Your task to perform on an android device: find which apps use the phone's location Image 0: 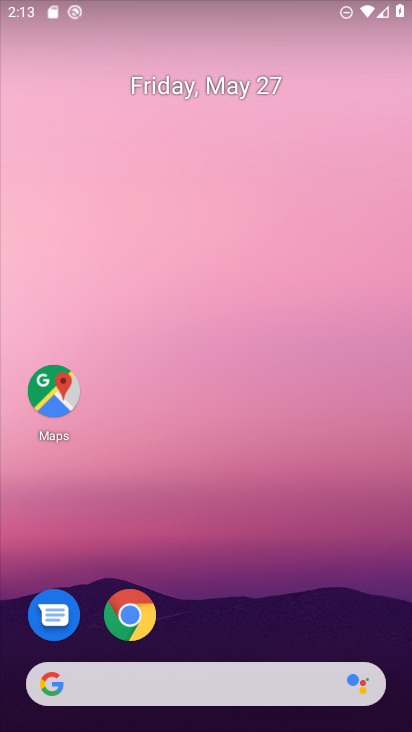
Step 0: drag from (237, 574) to (243, 159)
Your task to perform on an android device: find which apps use the phone's location Image 1: 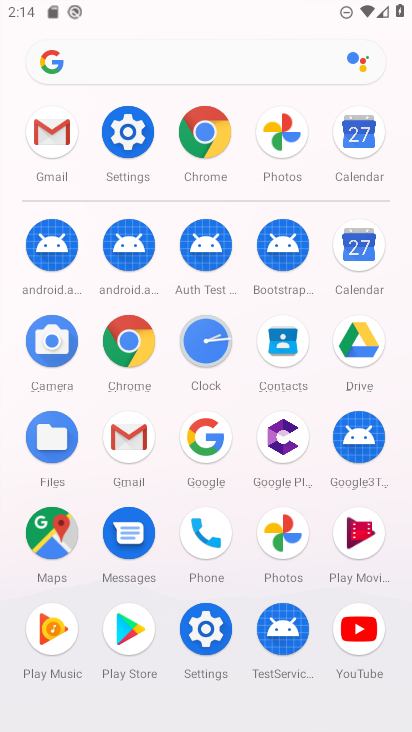
Step 1: click (196, 624)
Your task to perform on an android device: find which apps use the phone's location Image 2: 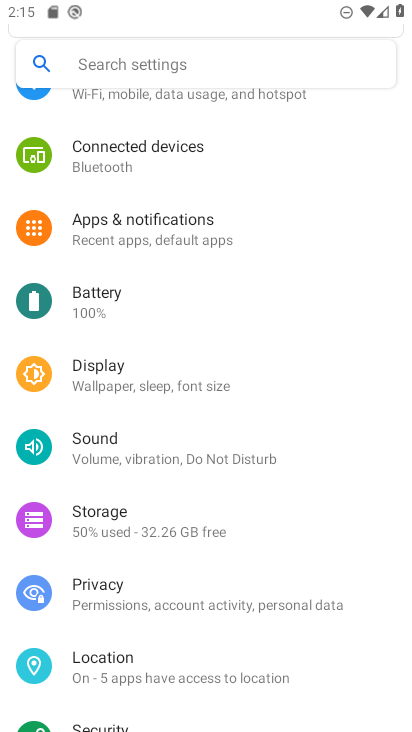
Step 2: click (171, 672)
Your task to perform on an android device: find which apps use the phone's location Image 3: 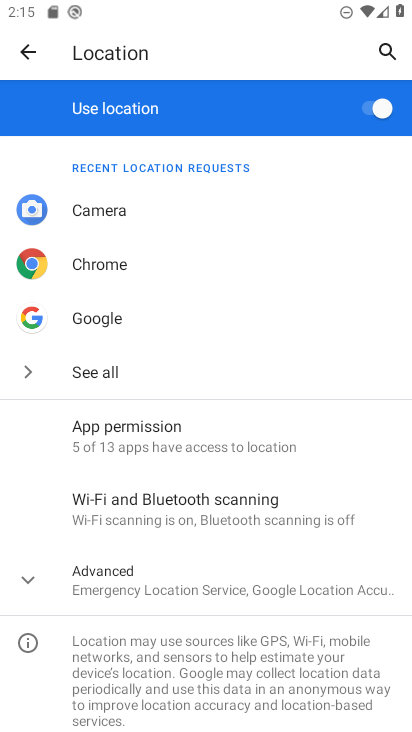
Step 3: click (200, 450)
Your task to perform on an android device: find which apps use the phone's location Image 4: 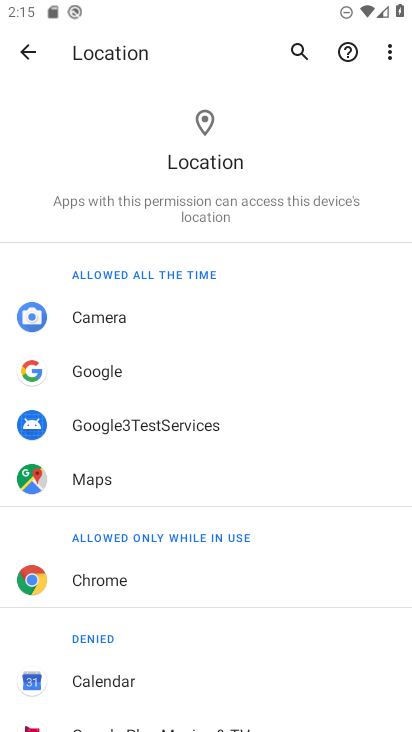
Step 4: task complete